Your task to perform on an android device: Show me productivity apps on the Play Store Image 0: 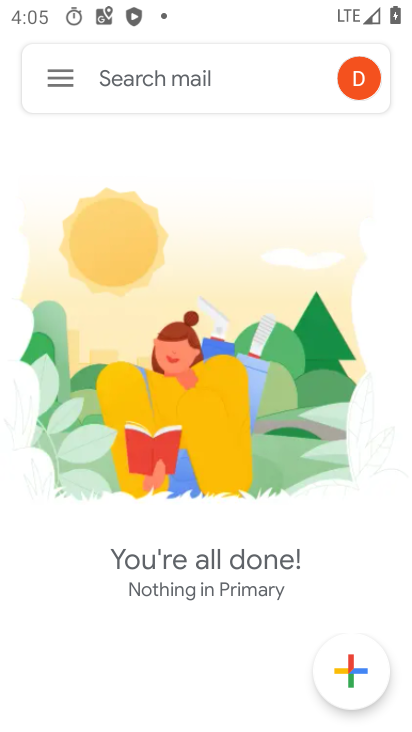
Step 0: press home button
Your task to perform on an android device: Show me productivity apps on the Play Store Image 1: 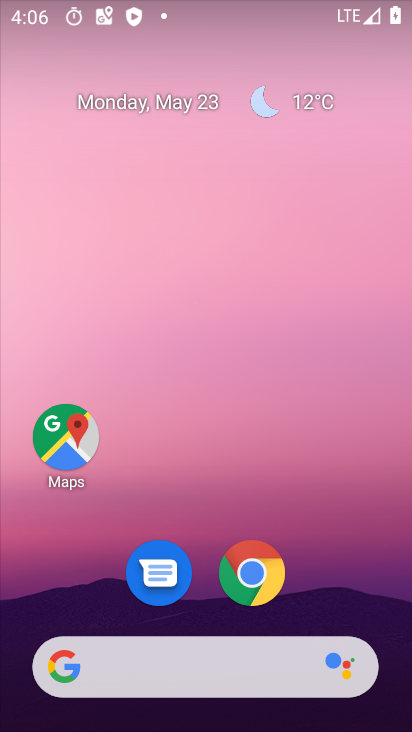
Step 1: drag from (10, 720) to (185, 226)
Your task to perform on an android device: Show me productivity apps on the Play Store Image 2: 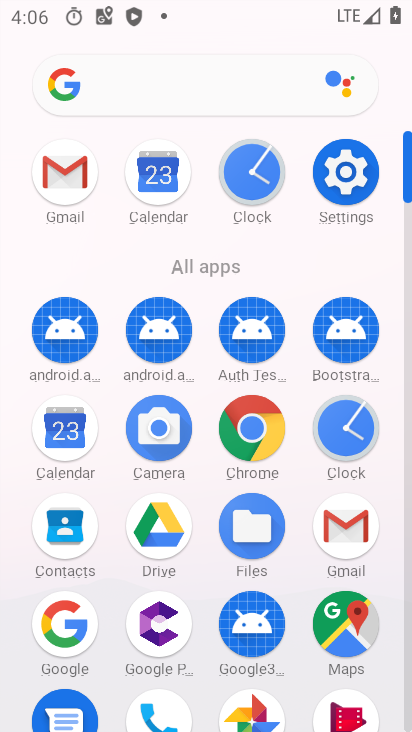
Step 2: drag from (26, 550) to (237, 155)
Your task to perform on an android device: Show me productivity apps on the Play Store Image 3: 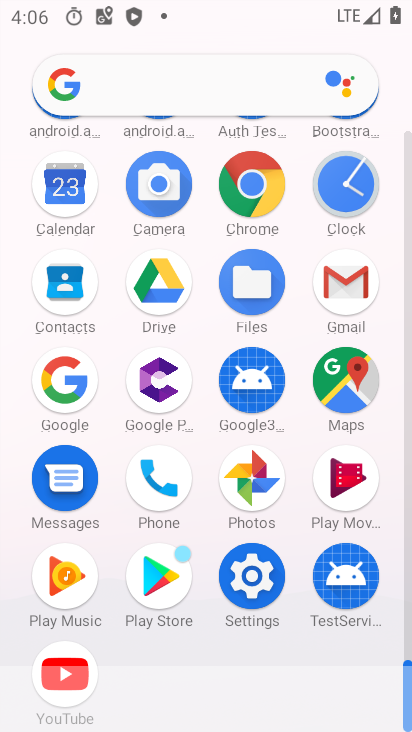
Step 3: click (153, 573)
Your task to perform on an android device: Show me productivity apps on the Play Store Image 4: 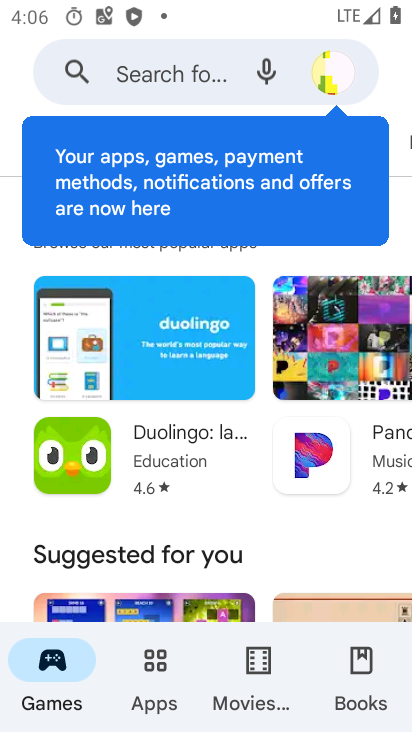
Step 4: click (157, 651)
Your task to perform on an android device: Show me productivity apps on the Play Store Image 5: 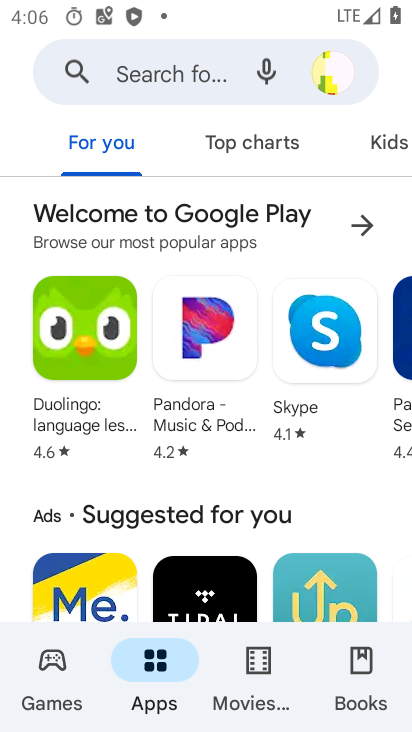
Step 5: task complete